Your task to perform on an android device: change the clock display to show seconds Image 0: 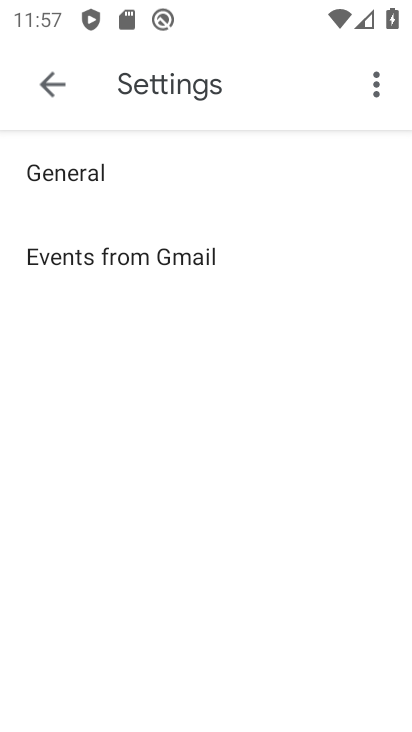
Step 0: task complete